Your task to perform on an android device: turn notification dots on Image 0: 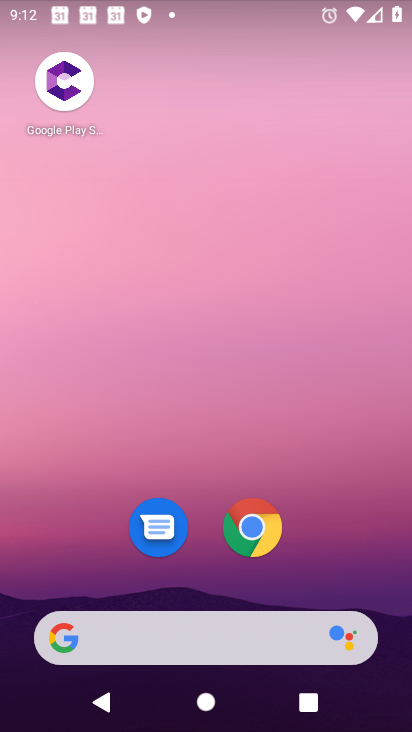
Step 0: drag from (230, 579) to (211, 6)
Your task to perform on an android device: turn notification dots on Image 1: 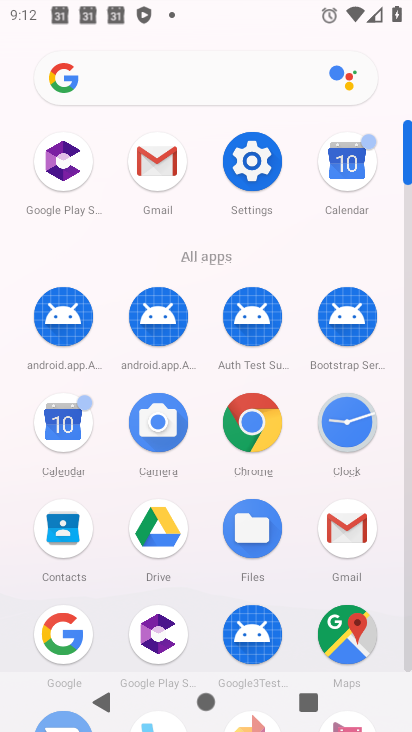
Step 1: click (244, 158)
Your task to perform on an android device: turn notification dots on Image 2: 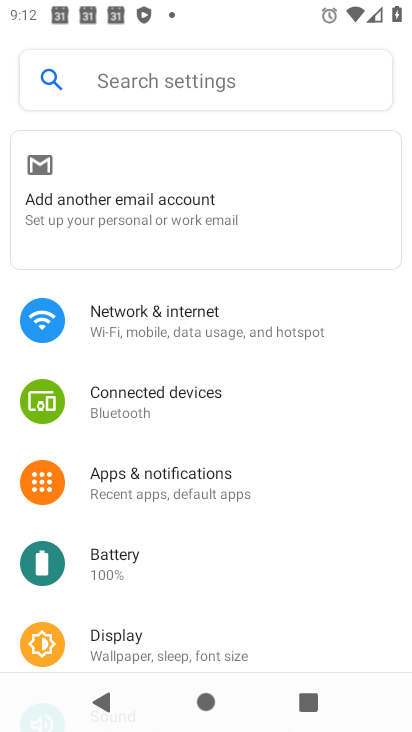
Step 2: drag from (200, 512) to (197, 378)
Your task to perform on an android device: turn notification dots on Image 3: 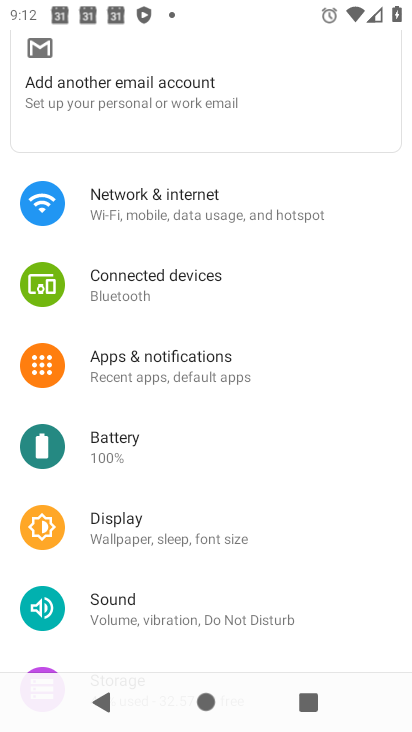
Step 3: click (176, 374)
Your task to perform on an android device: turn notification dots on Image 4: 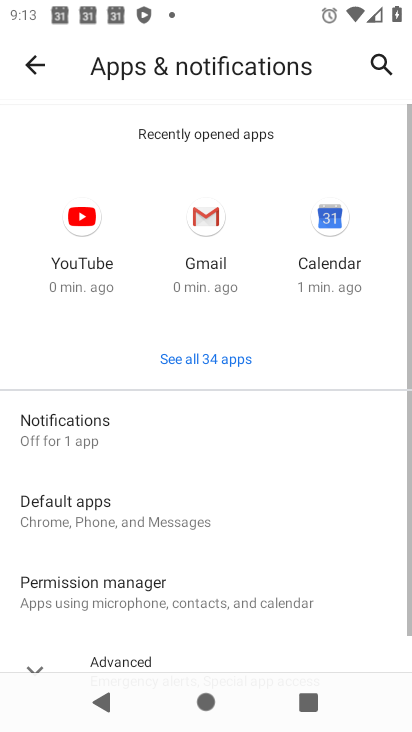
Step 4: click (91, 427)
Your task to perform on an android device: turn notification dots on Image 5: 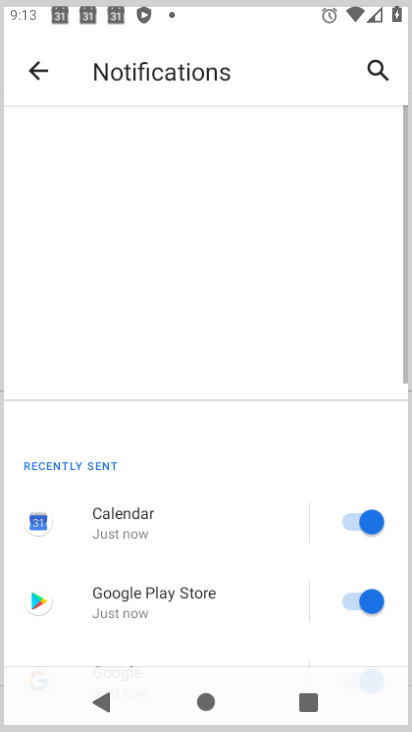
Step 5: drag from (183, 553) to (126, 36)
Your task to perform on an android device: turn notification dots on Image 6: 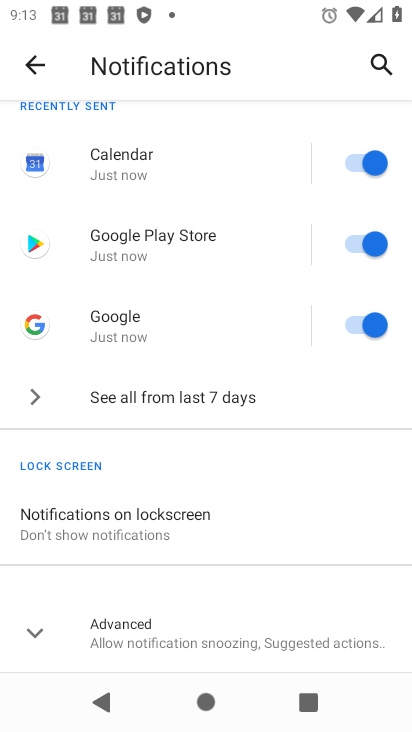
Step 6: click (162, 637)
Your task to perform on an android device: turn notification dots on Image 7: 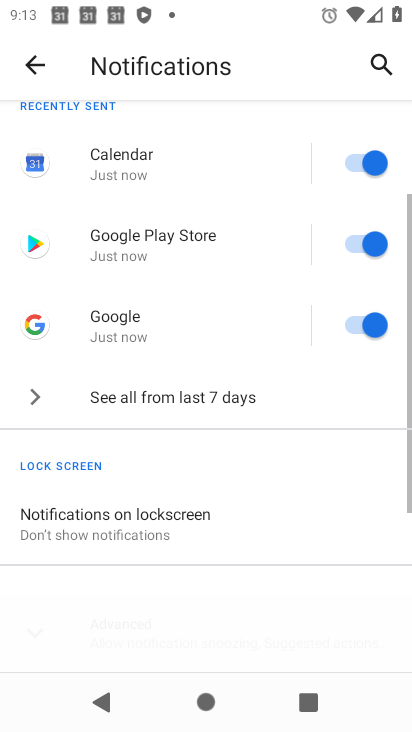
Step 7: task complete